Your task to perform on an android device: Add "razer huntsman" to the cart on target.com, then select checkout. Image 0: 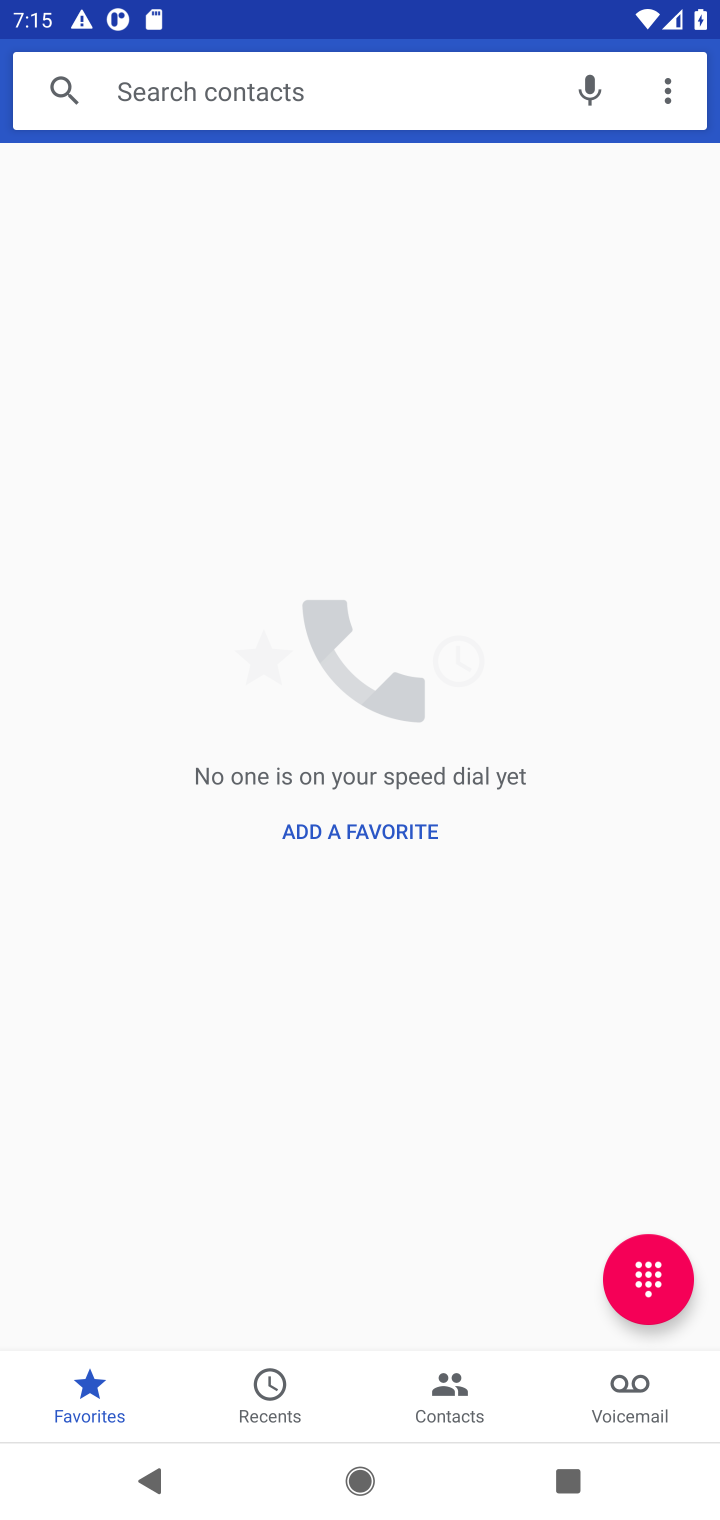
Step 0: press home button
Your task to perform on an android device: Add "razer huntsman" to the cart on target.com, then select checkout. Image 1: 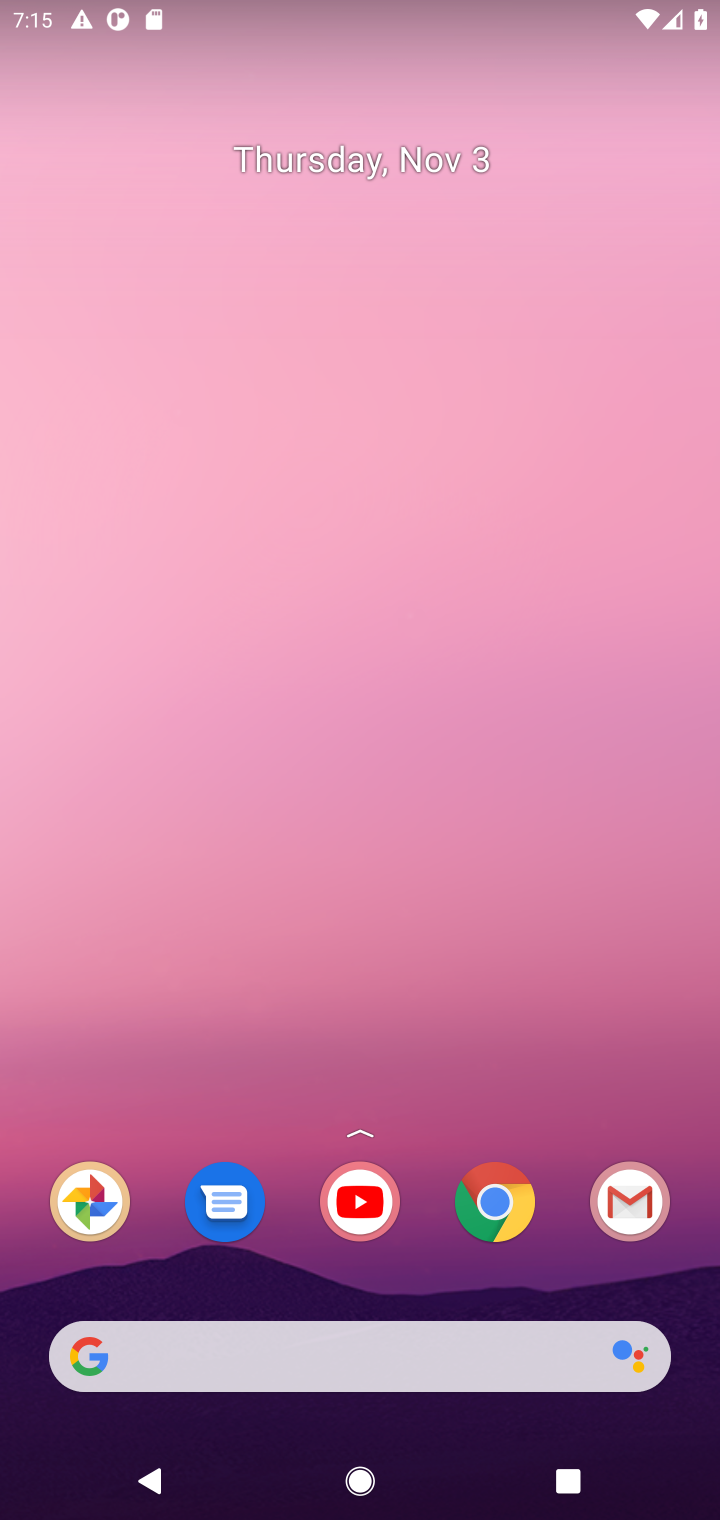
Step 1: click (125, 1354)
Your task to perform on an android device: Add "razer huntsman" to the cart on target.com, then select checkout. Image 2: 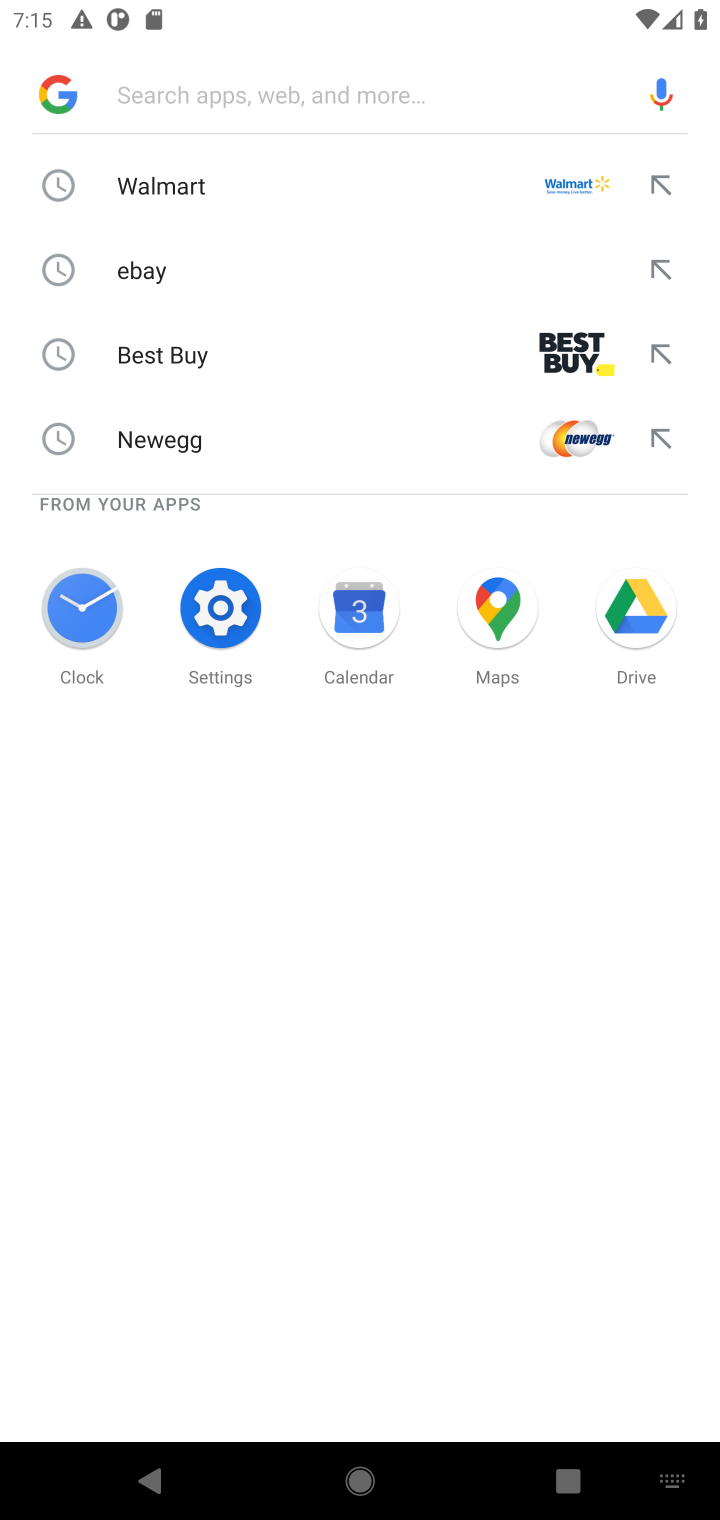
Step 2: press enter
Your task to perform on an android device: Add "razer huntsman" to the cart on target.com, then select checkout. Image 3: 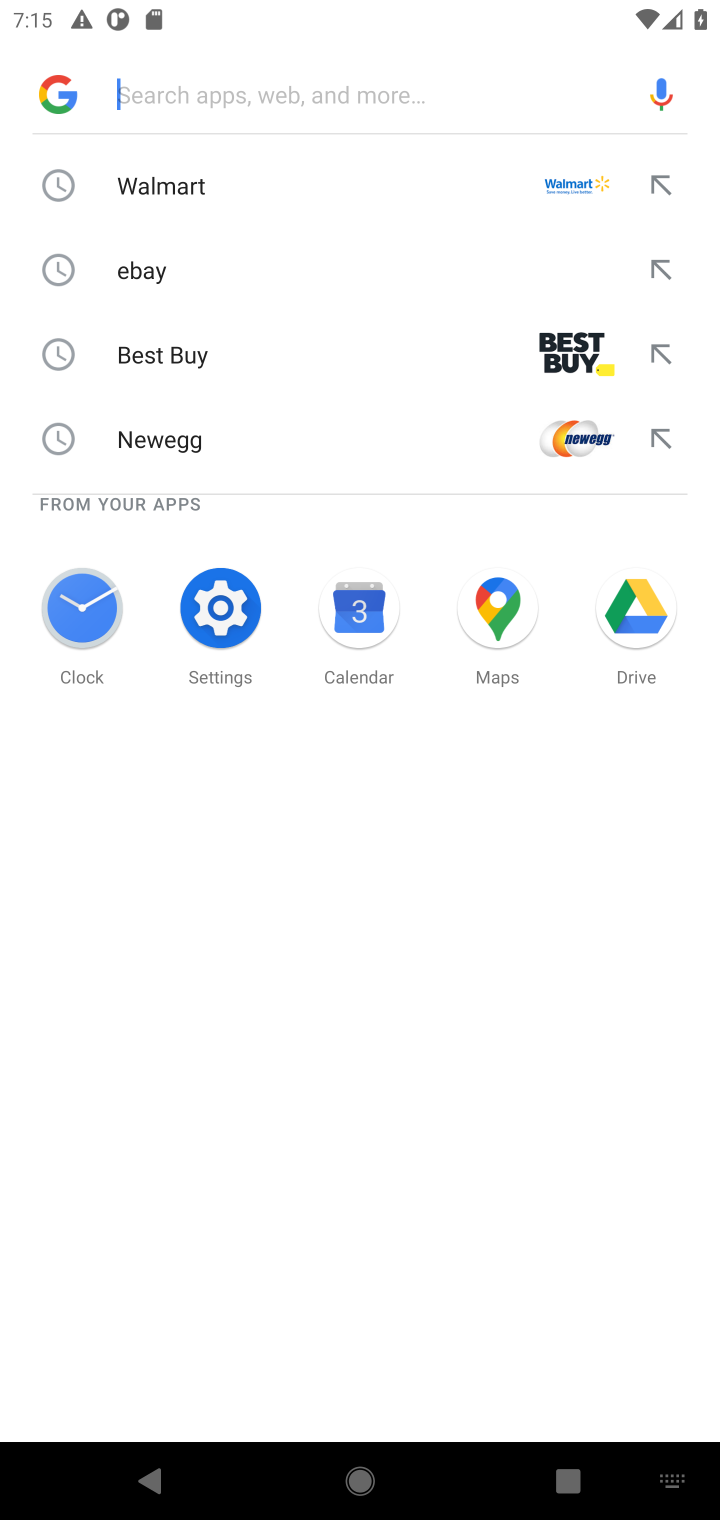
Step 3: type "target.com"
Your task to perform on an android device: Add "razer huntsman" to the cart on target.com, then select checkout. Image 4: 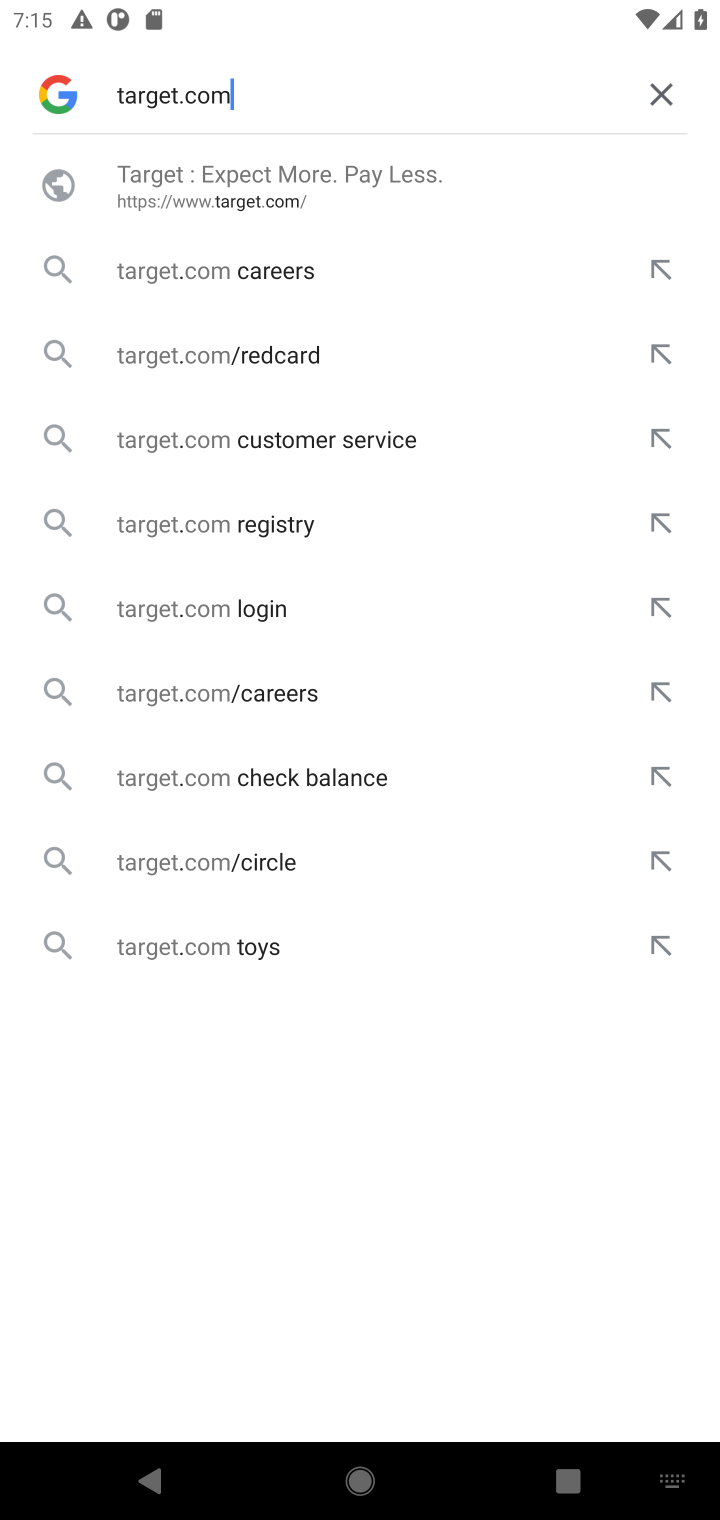
Step 4: press enter
Your task to perform on an android device: Add "razer huntsman" to the cart on target.com, then select checkout. Image 5: 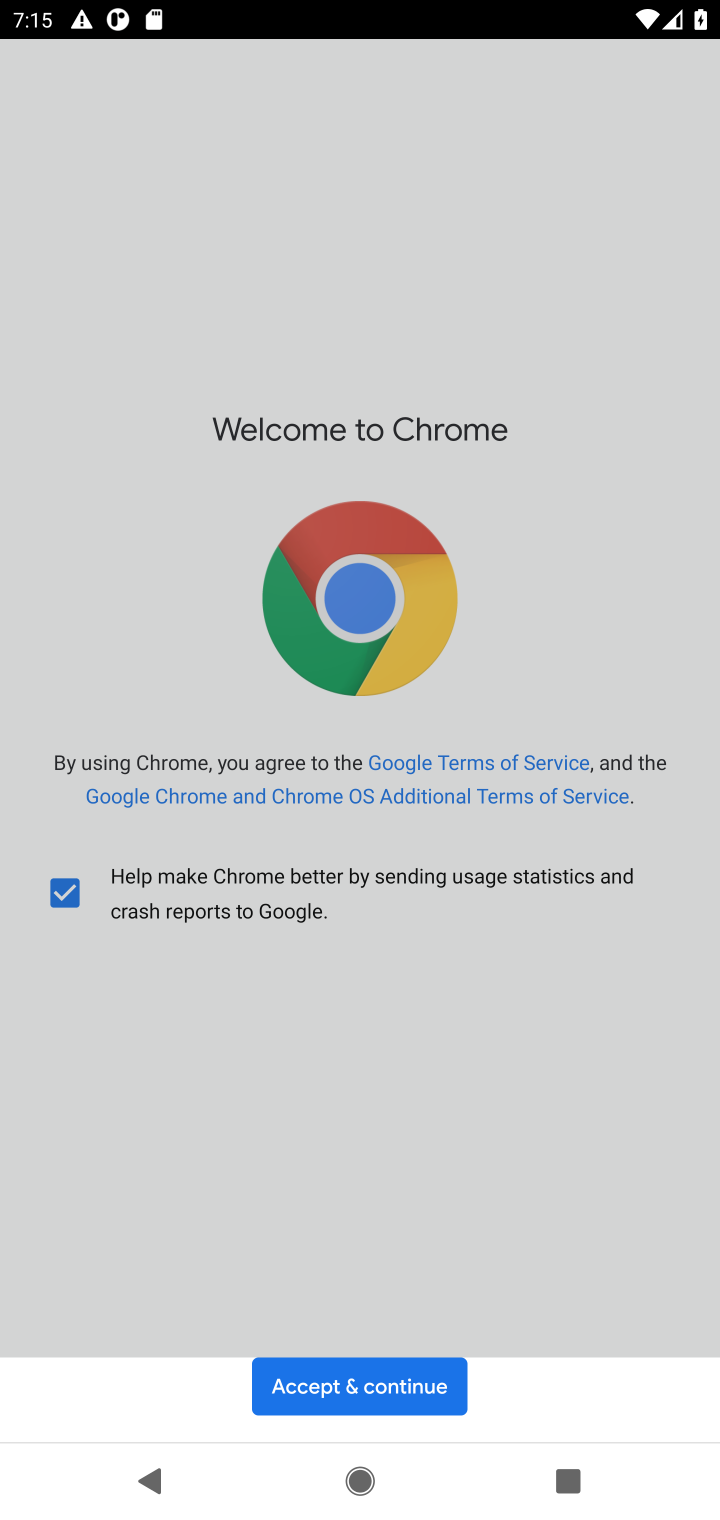
Step 5: click (431, 1382)
Your task to perform on an android device: Add "razer huntsman" to the cart on target.com, then select checkout. Image 6: 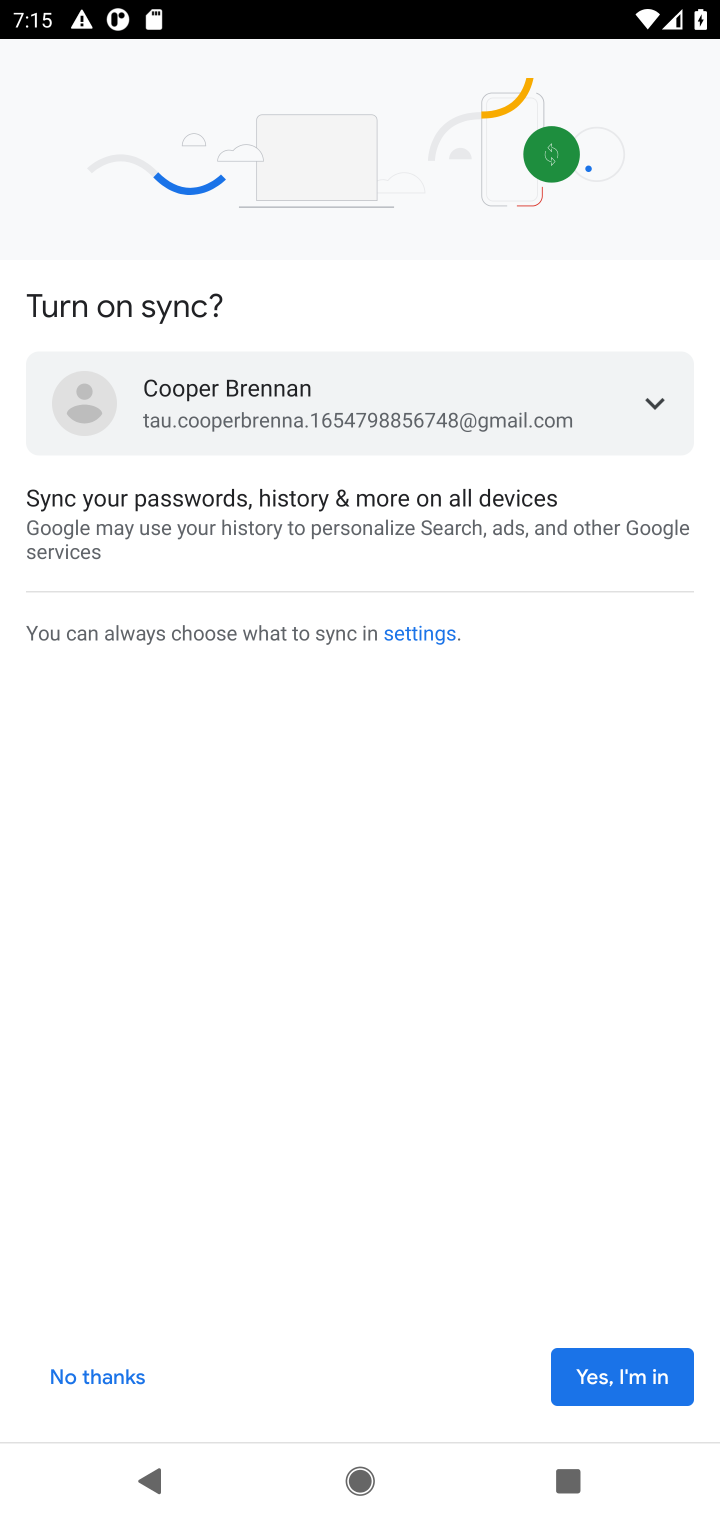
Step 6: click (626, 1380)
Your task to perform on an android device: Add "razer huntsman" to the cart on target.com, then select checkout. Image 7: 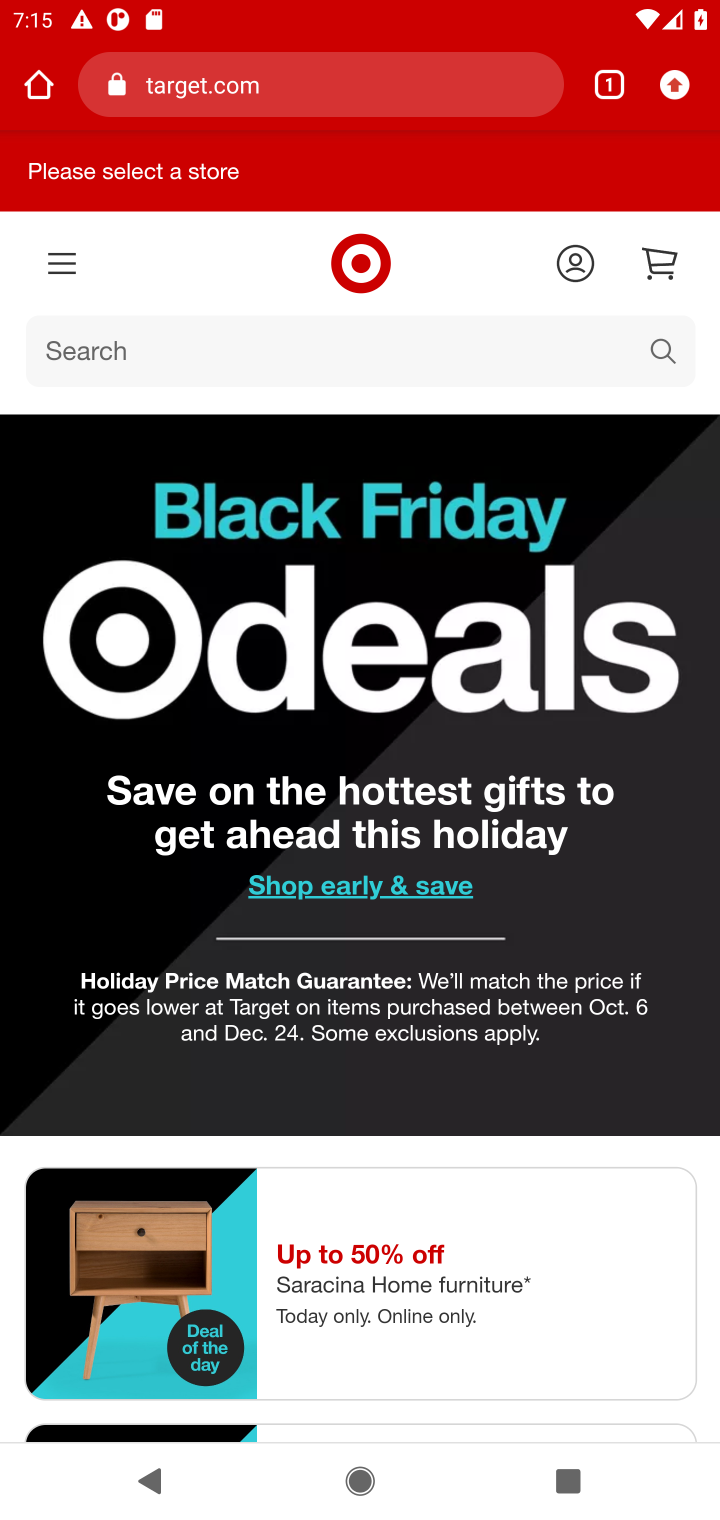
Step 7: click (77, 352)
Your task to perform on an android device: Add "razer huntsman" to the cart on target.com, then select checkout. Image 8: 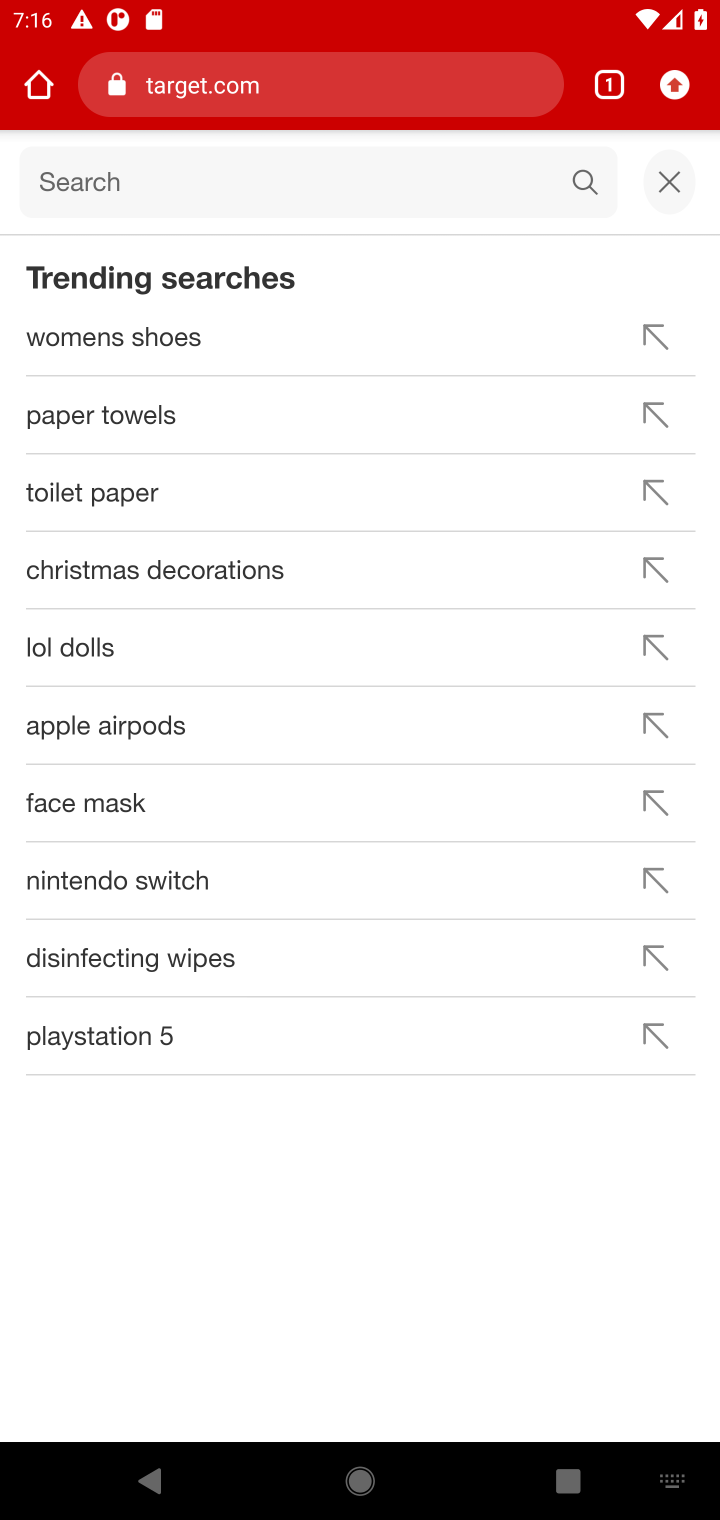
Step 8: press enter
Your task to perform on an android device: Add "razer huntsman" to the cart on target.com, then select checkout. Image 9: 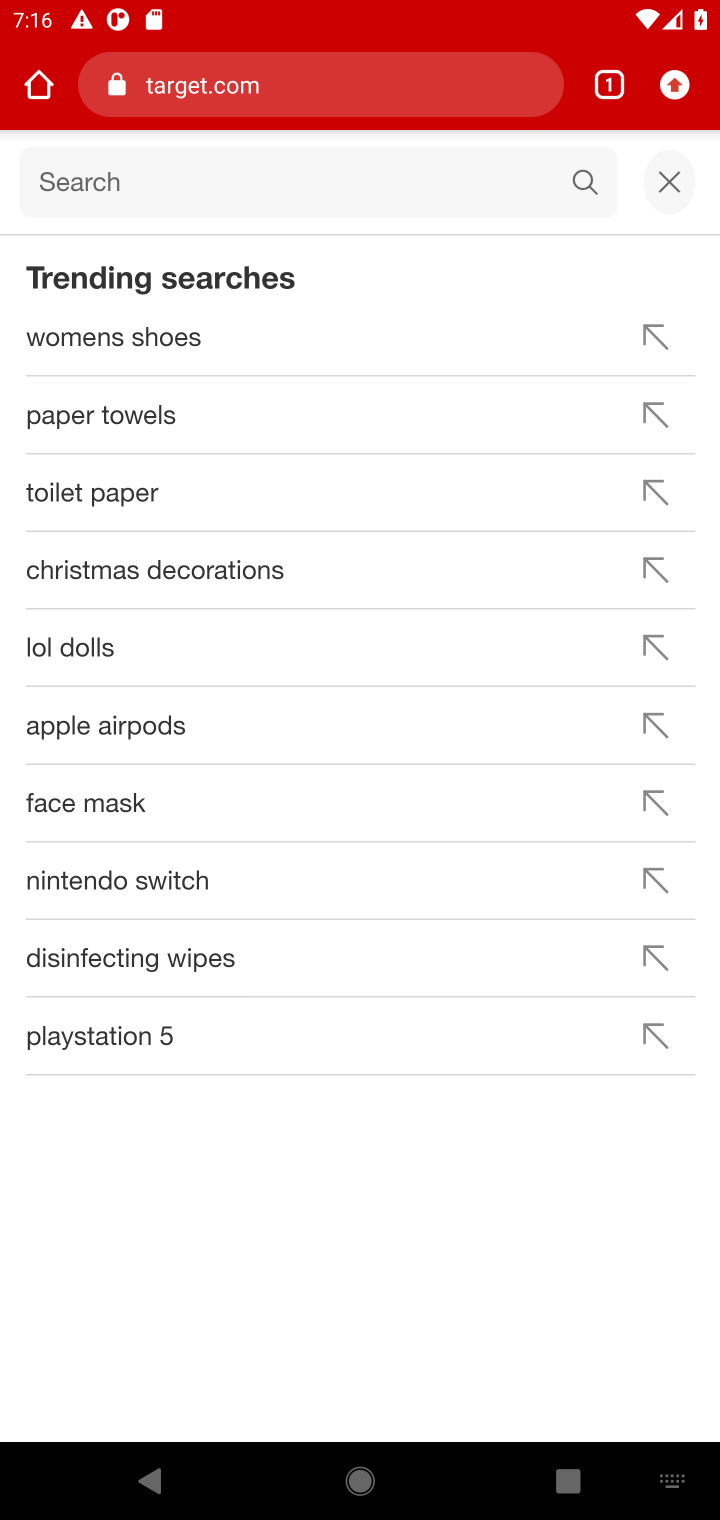
Step 9: type "razer huntsman"
Your task to perform on an android device: Add "razer huntsman" to the cart on target.com, then select checkout. Image 10: 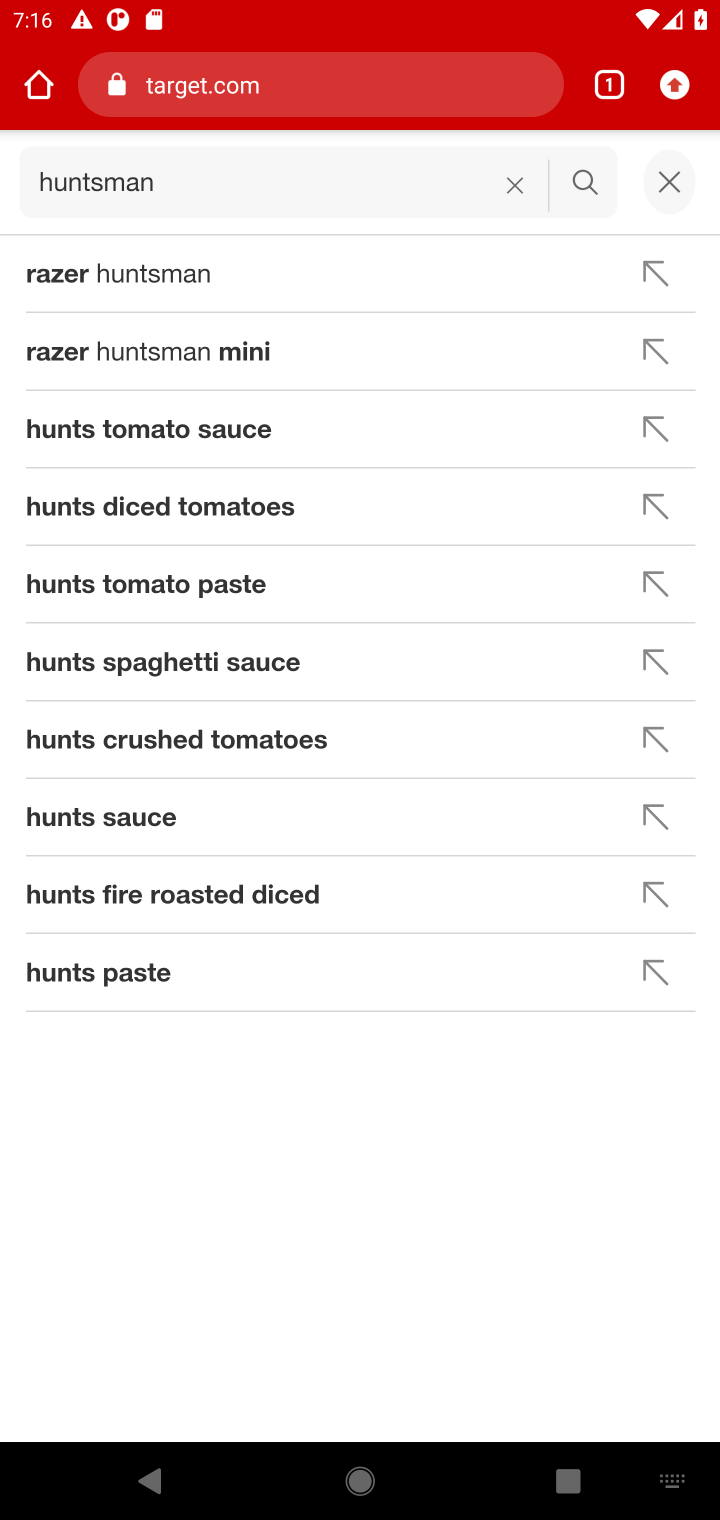
Step 10: click (187, 278)
Your task to perform on an android device: Add "razer huntsman" to the cart on target.com, then select checkout. Image 11: 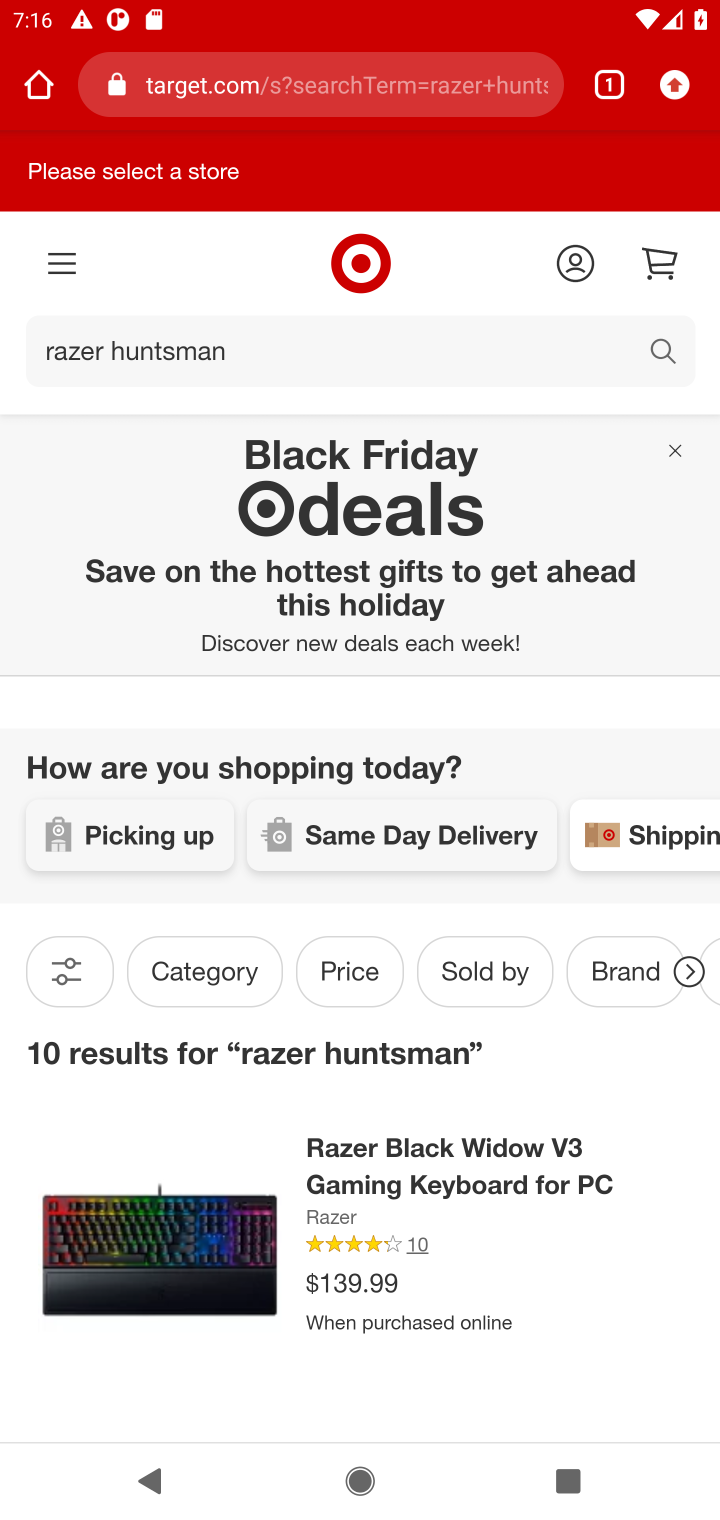
Step 11: task complete